Your task to perform on an android device: Open Wikipedia Image 0: 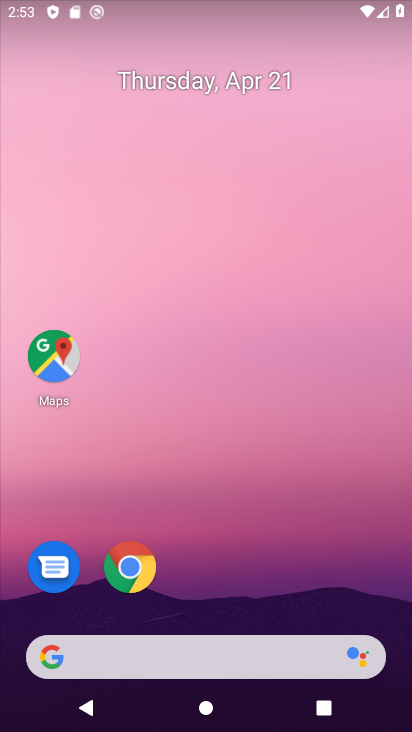
Step 0: click (133, 573)
Your task to perform on an android device: Open Wikipedia Image 1: 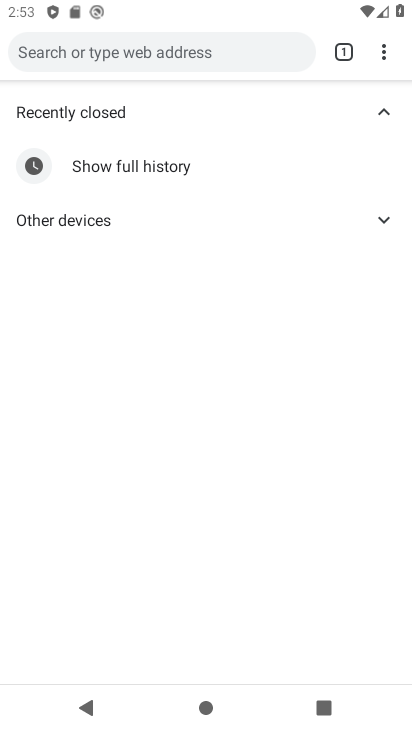
Step 1: click (349, 51)
Your task to perform on an android device: Open Wikipedia Image 2: 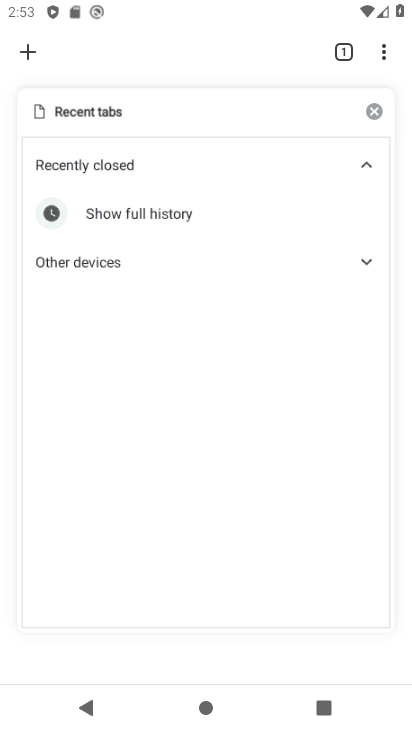
Step 2: click (24, 58)
Your task to perform on an android device: Open Wikipedia Image 3: 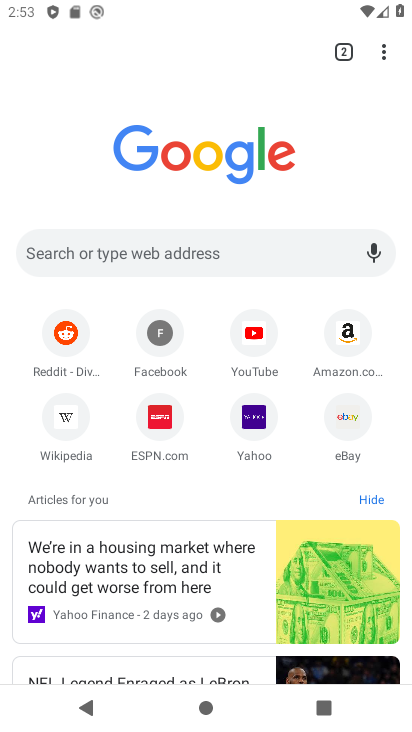
Step 3: click (83, 420)
Your task to perform on an android device: Open Wikipedia Image 4: 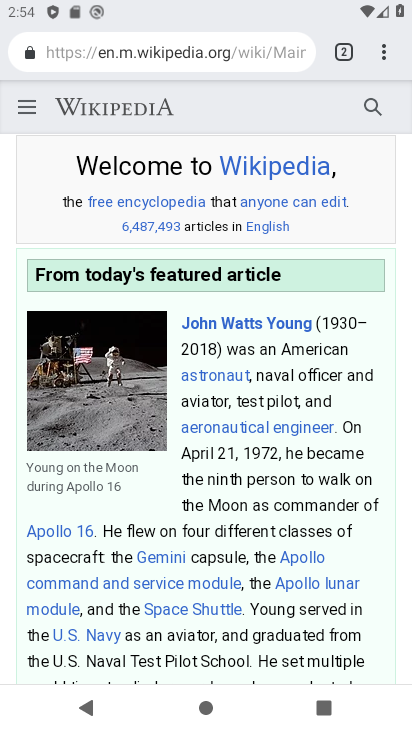
Step 4: task complete